Your task to perform on an android device: Is it going to rain tomorrow? Image 0: 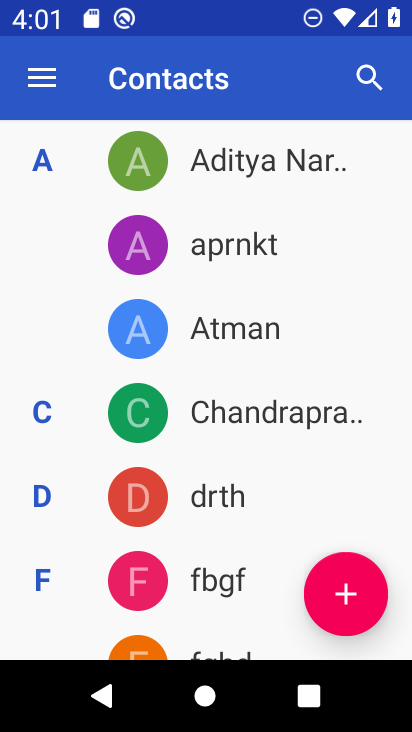
Step 0: press back button
Your task to perform on an android device: Is it going to rain tomorrow? Image 1: 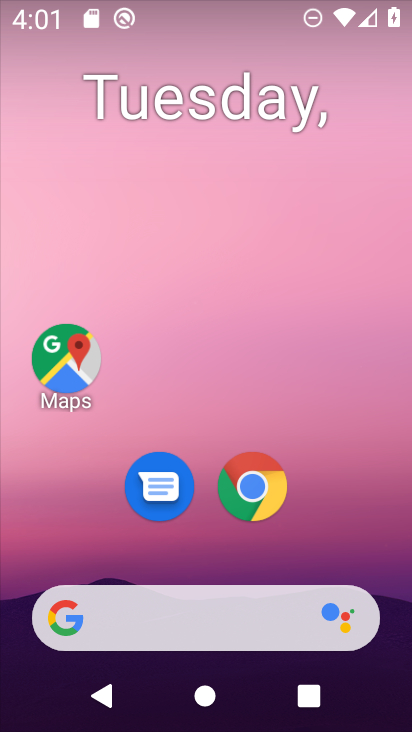
Step 1: drag from (167, 578) to (228, 41)
Your task to perform on an android device: Is it going to rain tomorrow? Image 2: 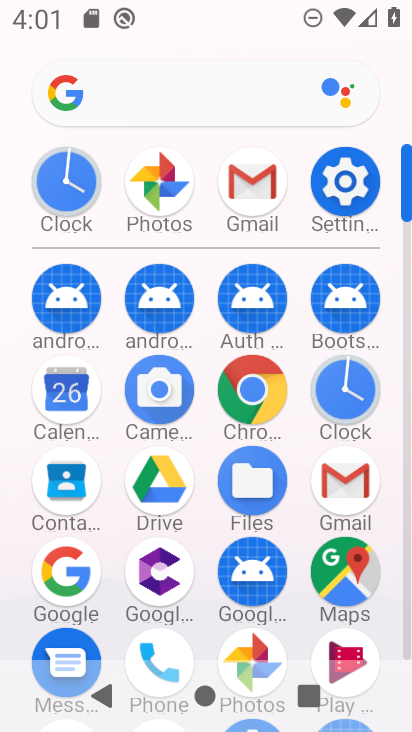
Step 2: click (160, 100)
Your task to perform on an android device: Is it going to rain tomorrow? Image 3: 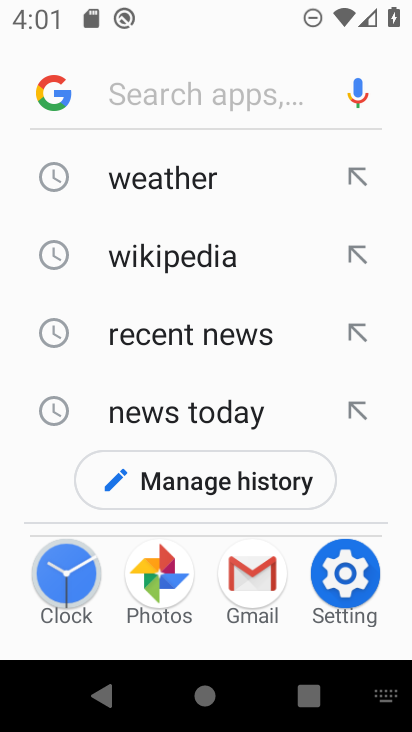
Step 3: click (170, 186)
Your task to perform on an android device: Is it going to rain tomorrow? Image 4: 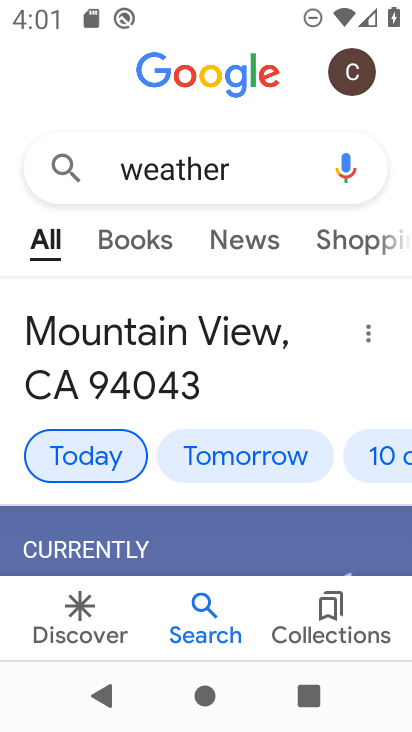
Step 4: click (234, 450)
Your task to perform on an android device: Is it going to rain tomorrow? Image 5: 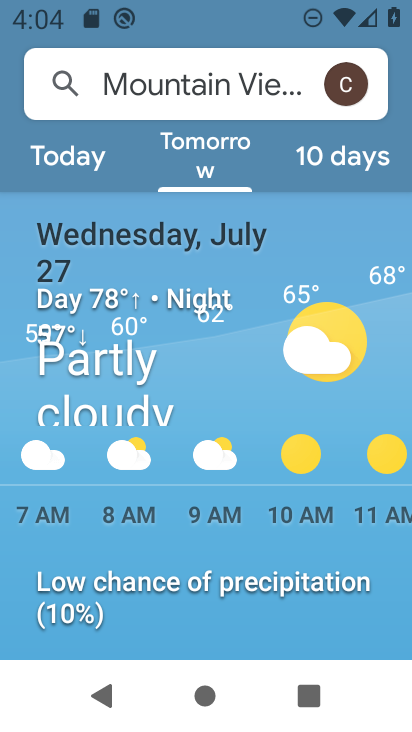
Step 5: task complete